Your task to perform on an android device: Go to accessibility settings Image 0: 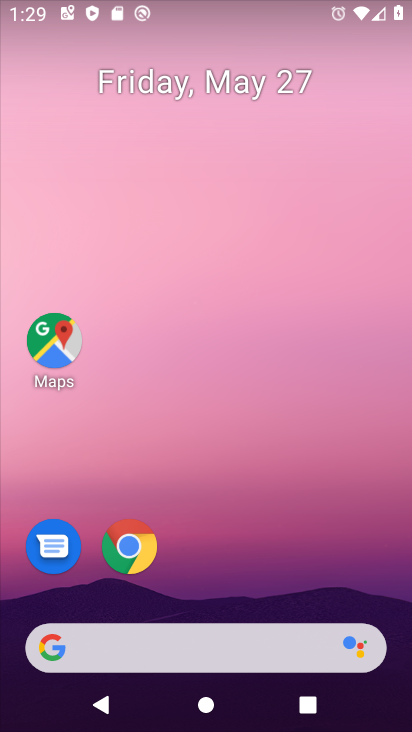
Step 0: drag from (245, 671) to (347, 65)
Your task to perform on an android device: Go to accessibility settings Image 1: 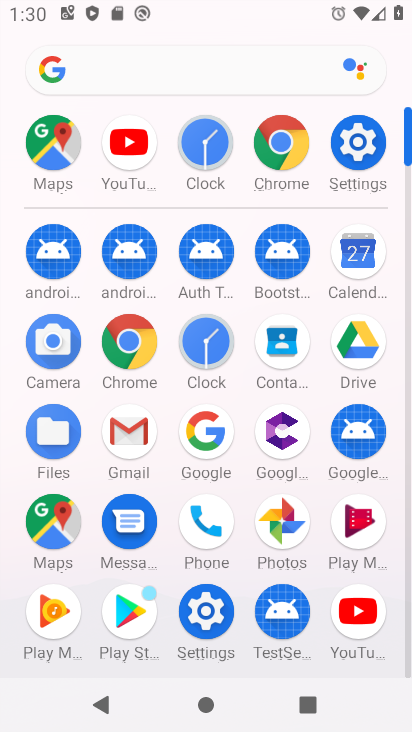
Step 1: click (343, 154)
Your task to perform on an android device: Go to accessibility settings Image 2: 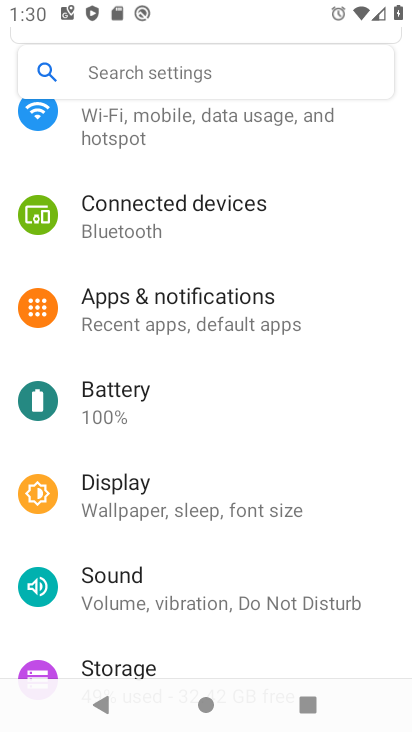
Step 2: click (175, 81)
Your task to perform on an android device: Go to accessibility settings Image 3: 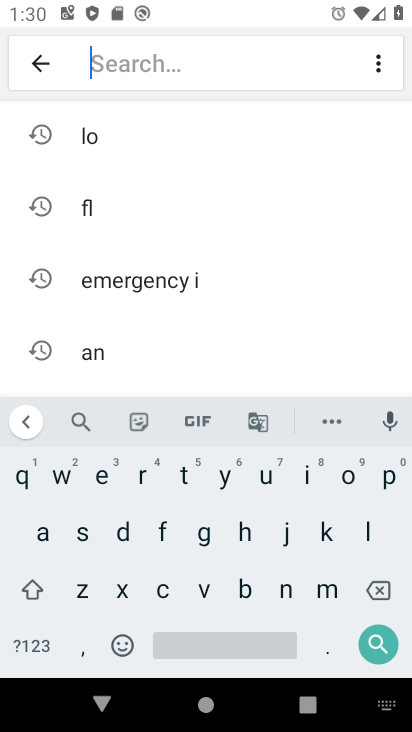
Step 3: click (46, 526)
Your task to perform on an android device: Go to accessibility settings Image 4: 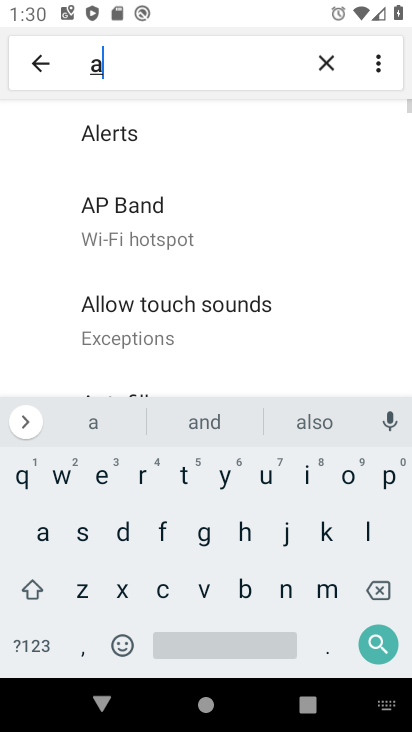
Step 4: click (160, 579)
Your task to perform on an android device: Go to accessibility settings Image 5: 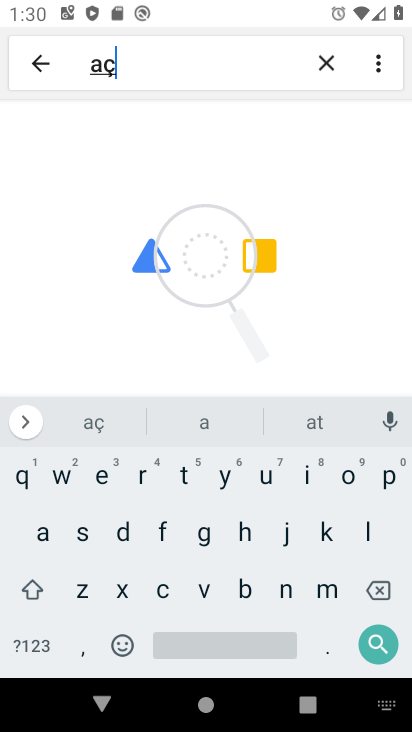
Step 5: click (392, 584)
Your task to perform on an android device: Go to accessibility settings Image 6: 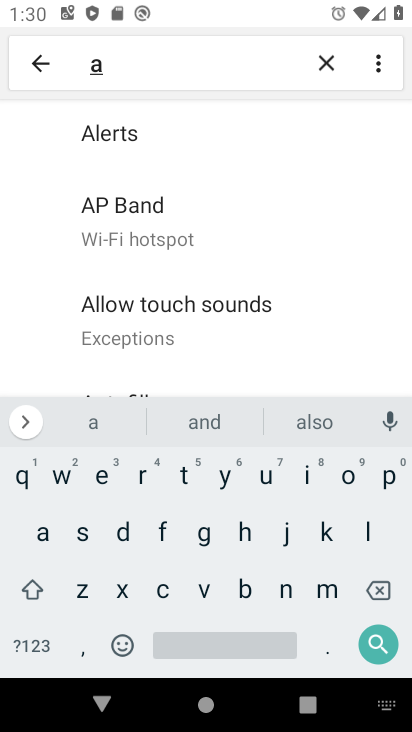
Step 6: click (158, 583)
Your task to perform on an android device: Go to accessibility settings Image 7: 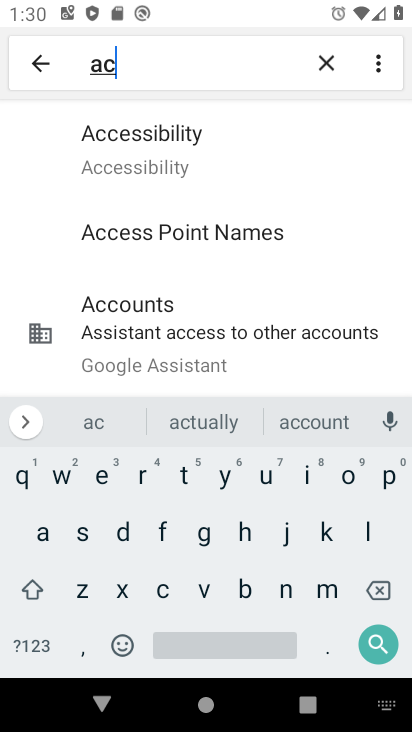
Step 7: click (148, 141)
Your task to perform on an android device: Go to accessibility settings Image 8: 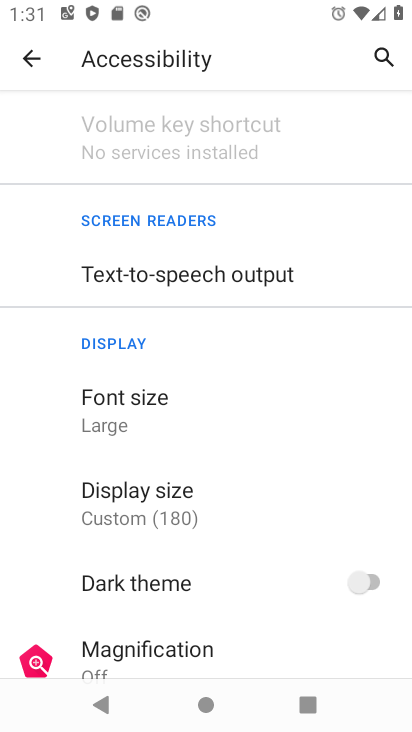
Step 8: task complete